Your task to perform on an android device: open app "McDonald's" (install if not already installed) Image 0: 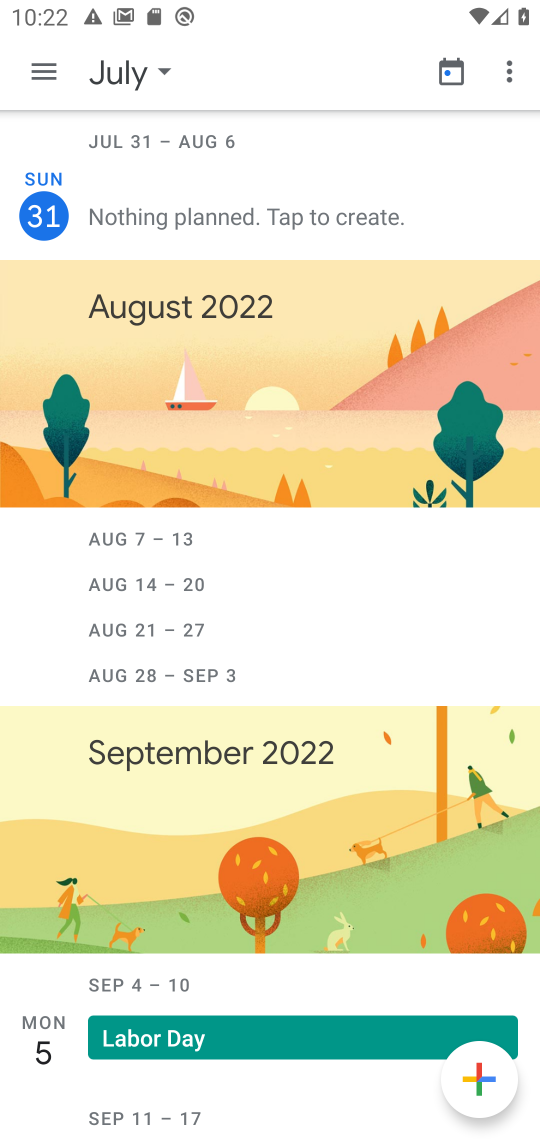
Step 0: press home button
Your task to perform on an android device: open app "McDonald's" (install if not already installed) Image 1: 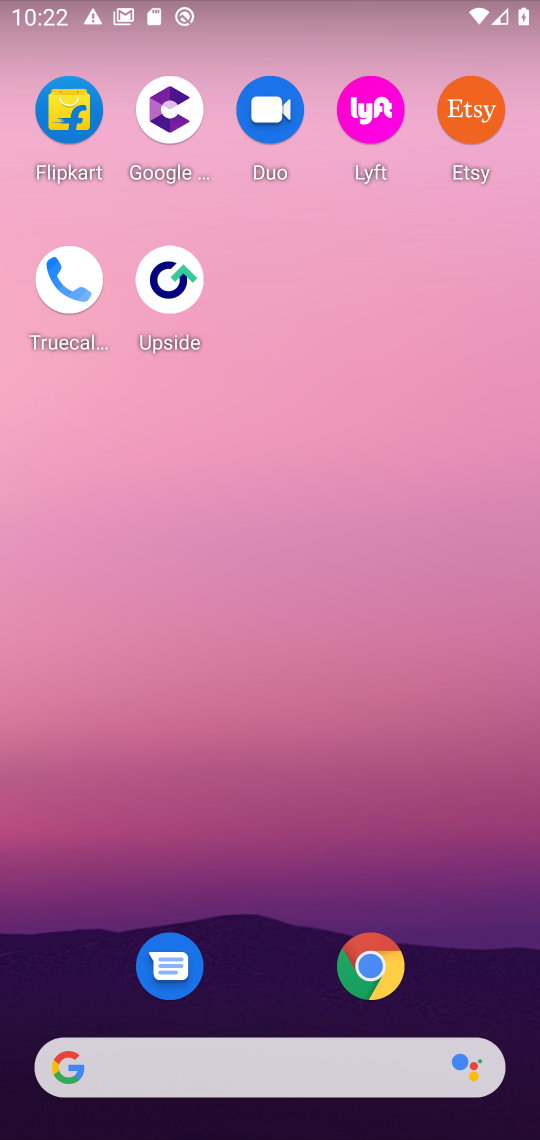
Step 1: drag from (254, 975) to (216, 60)
Your task to perform on an android device: open app "McDonald's" (install if not already installed) Image 2: 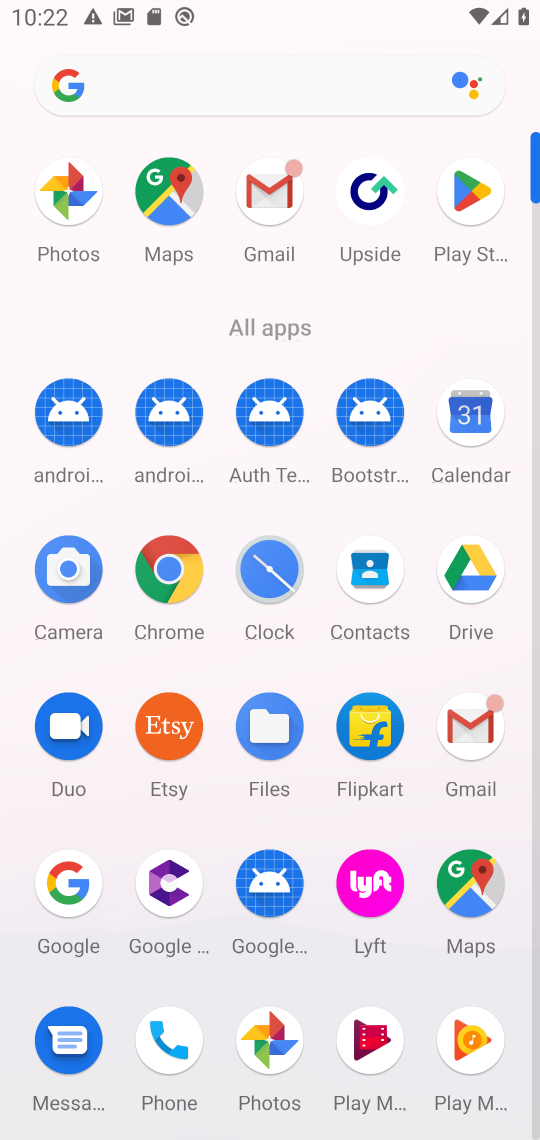
Step 2: drag from (309, 962) to (342, 451)
Your task to perform on an android device: open app "McDonald's" (install if not already installed) Image 3: 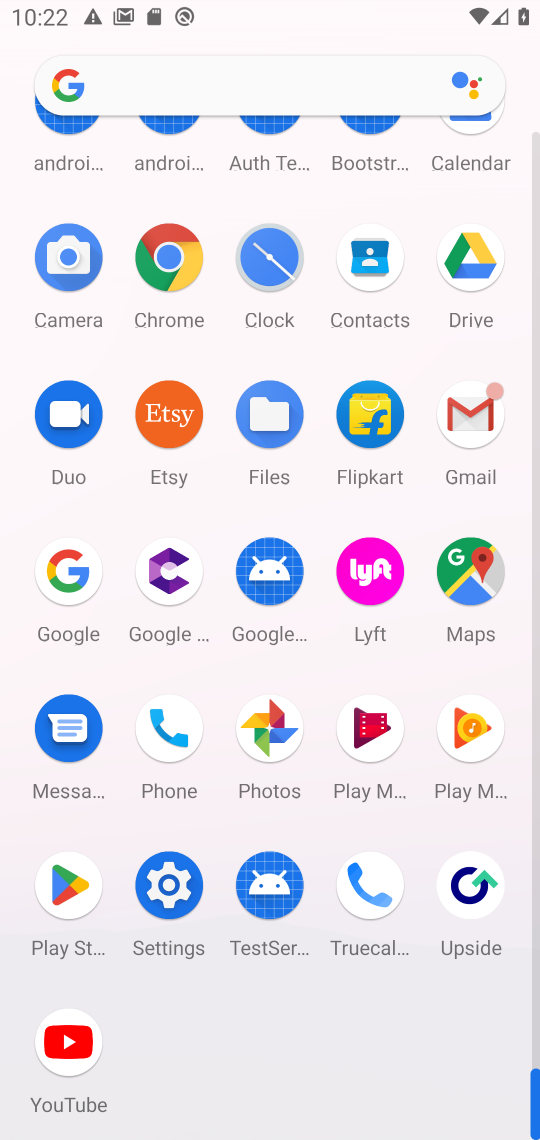
Step 3: click (60, 900)
Your task to perform on an android device: open app "McDonald's" (install if not already installed) Image 4: 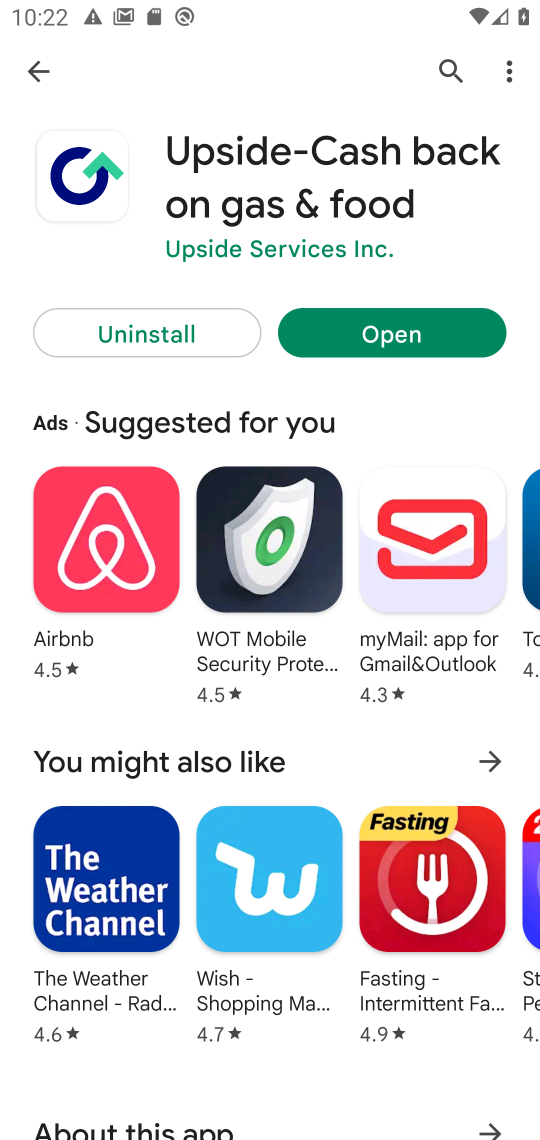
Step 4: click (48, 59)
Your task to perform on an android device: open app "McDonald's" (install if not already installed) Image 5: 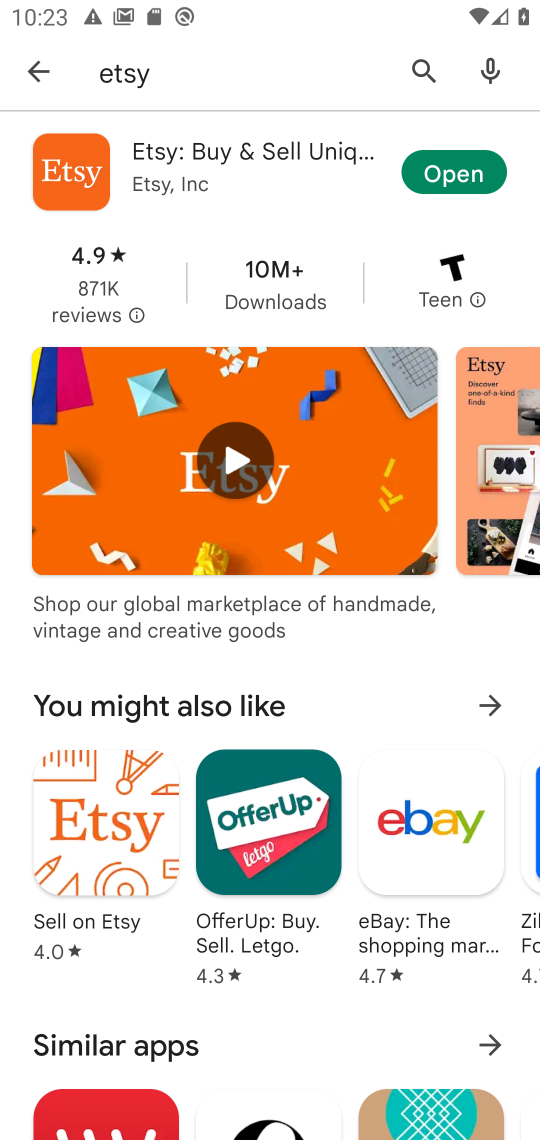
Step 5: click (200, 59)
Your task to perform on an android device: open app "McDonald's" (install if not already installed) Image 6: 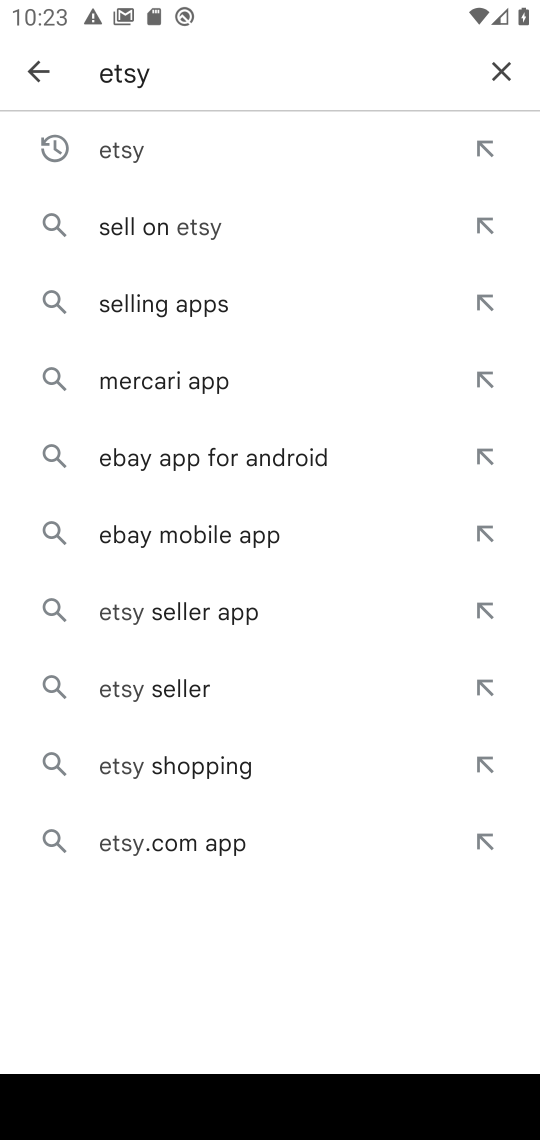
Step 6: click (492, 68)
Your task to perform on an android device: open app "McDonald's" (install if not already installed) Image 7: 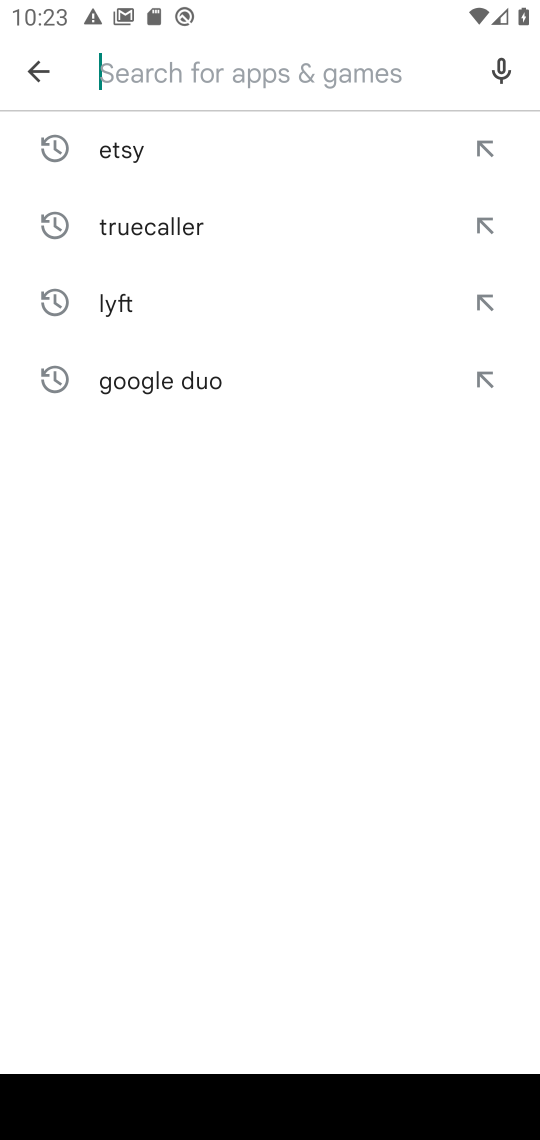
Step 7: type "Mcdonalds"
Your task to perform on an android device: open app "McDonald's" (install if not already installed) Image 8: 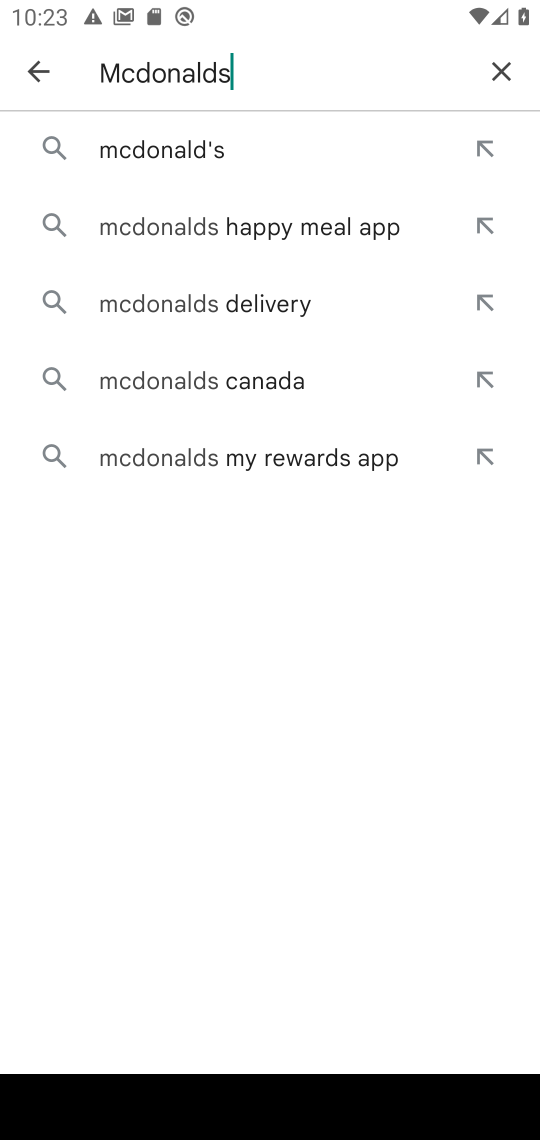
Step 8: click (146, 174)
Your task to perform on an android device: open app "McDonald's" (install if not already installed) Image 9: 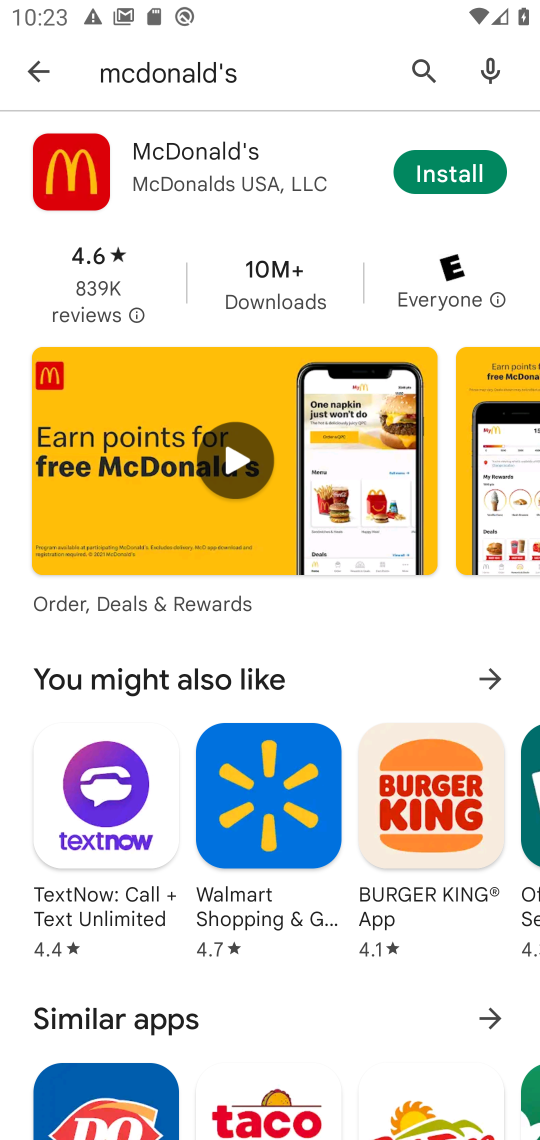
Step 9: click (456, 179)
Your task to perform on an android device: open app "McDonald's" (install if not already installed) Image 10: 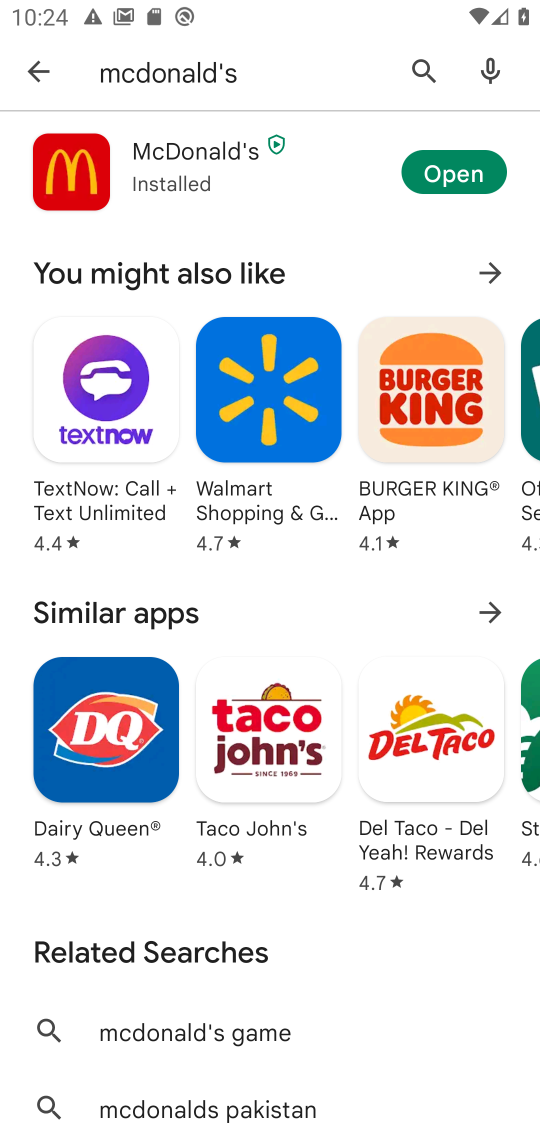
Step 10: click (455, 177)
Your task to perform on an android device: open app "McDonald's" (install if not already installed) Image 11: 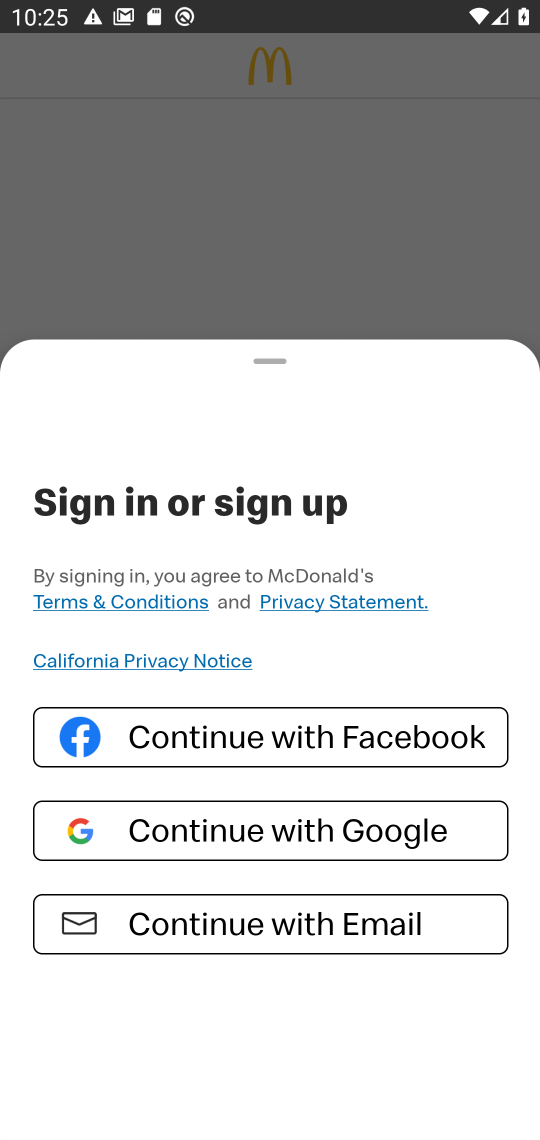
Step 11: click (270, 824)
Your task to perform on an android device: open app "McDonald's" (install if not already installed) Image 12: 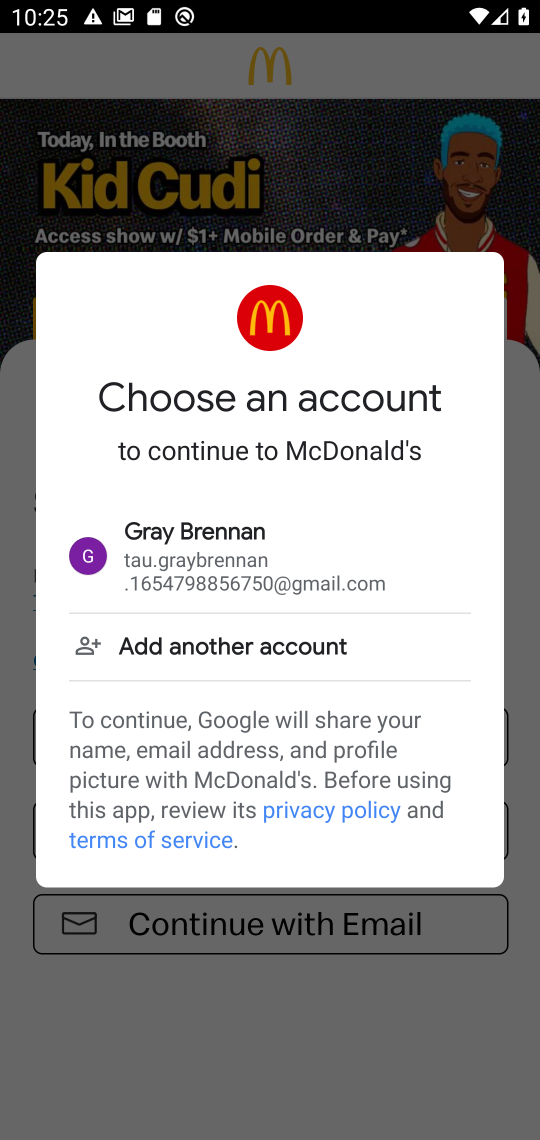
Step 12: click (220, 554)
Your task to perform on an android device: open app "McDonald's" (install if not already installed) Image 13: 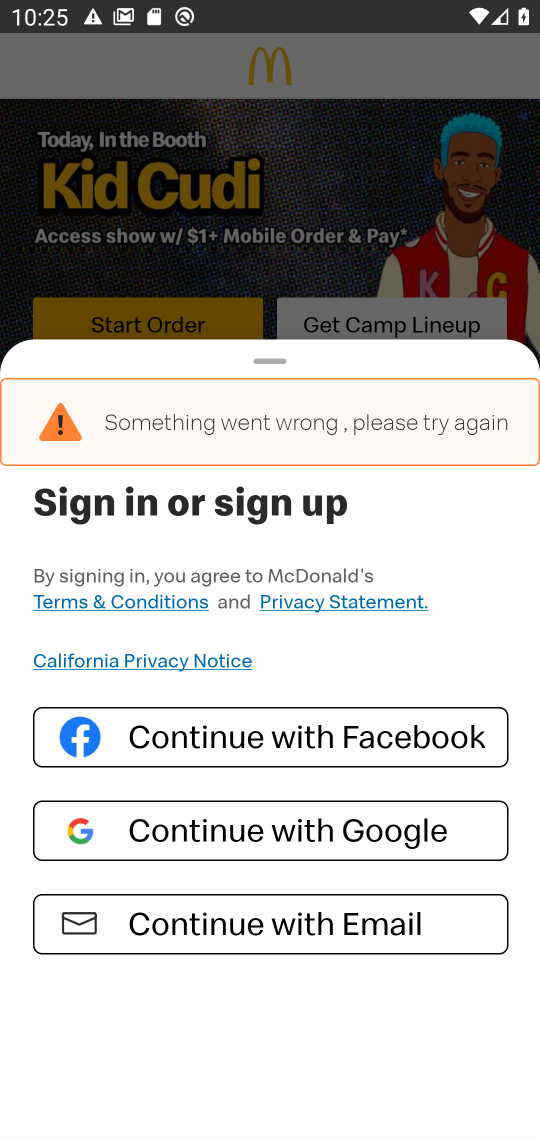
Step 13: click (296, 836)
Your task to perform on an android device: open app "McDonald's" (install if not already installed) Image 14: 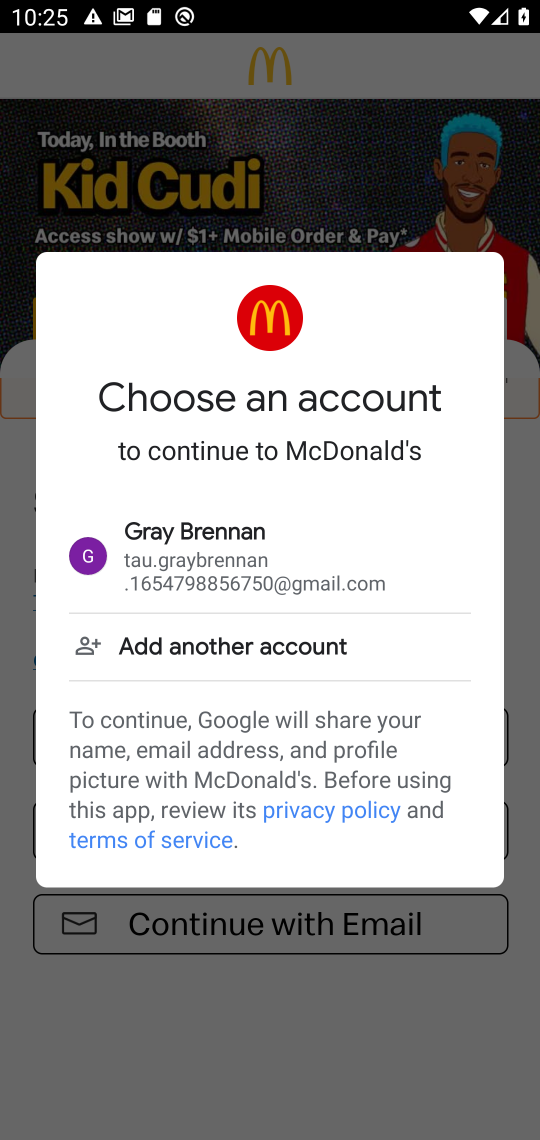
Step 14: click (216, 584)
Your task to perform on an android device: open app "McDonald's" (install if not already installed) Image 15: 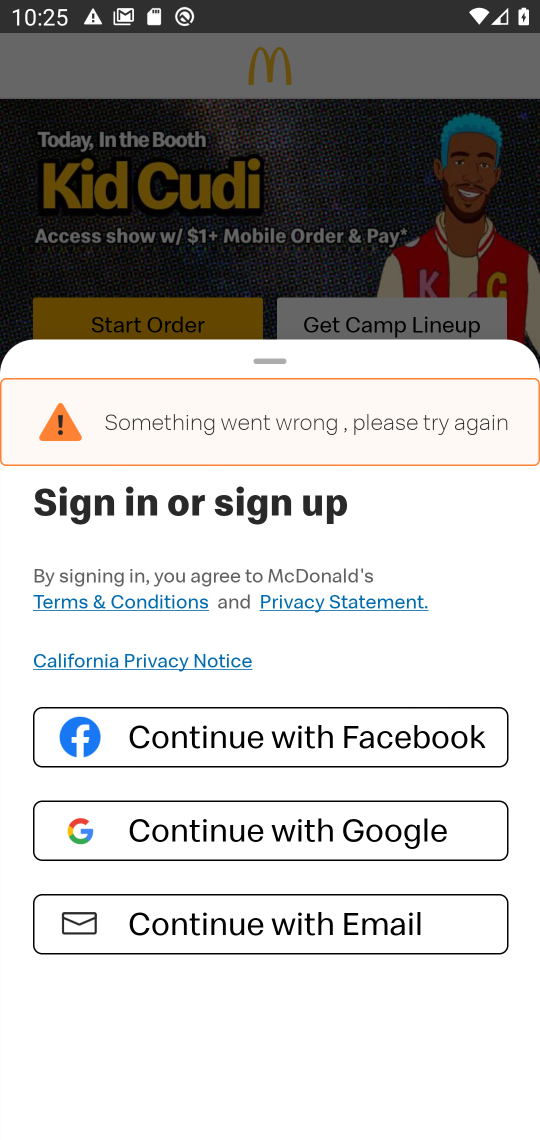
Step 15: task complete